Your task to perform on an android device: Open Wikipedia Image 0: 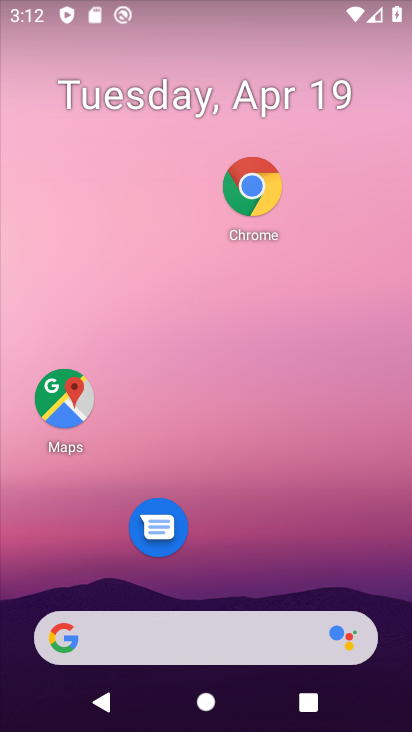
Step 0: drag from (310, 381) to (331, 292)
Your task to perform on an android device: Open Wikipedia Image 1: 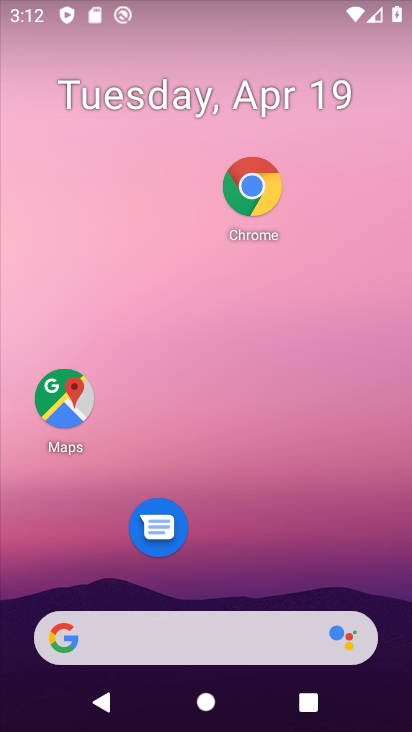
Step 1: drag from (246, 558) to (329, 231)
Your task to perform on an android device: Open Wikipedia Image 2: 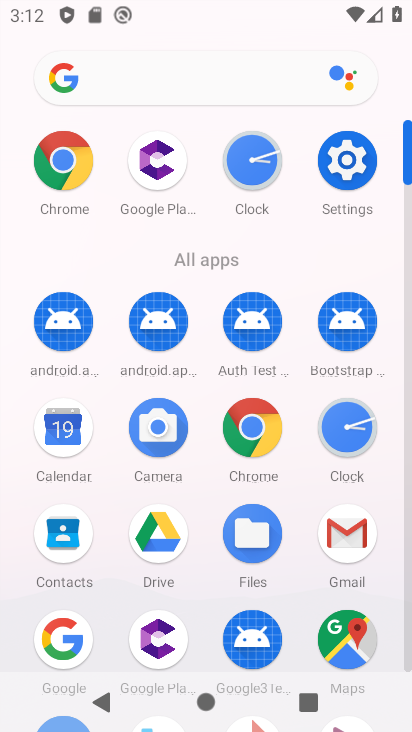
Step 2: click (256, 424)
Your task to perform on an android device: Open Wikipedia Image 3: 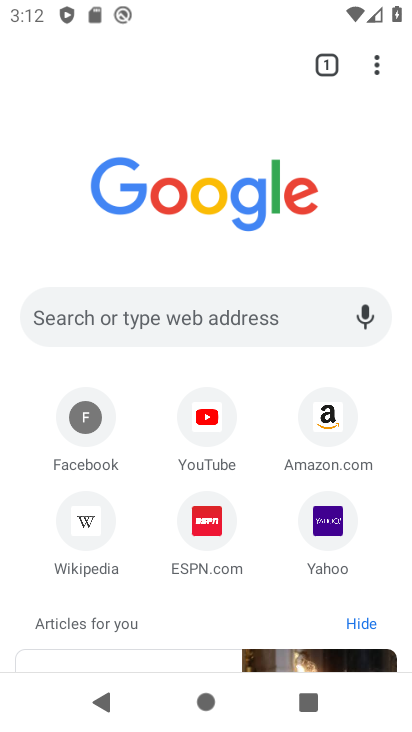
Step 3: click (67, 518)
Your task to perform on an android device: Open Wikipedia Image 4: 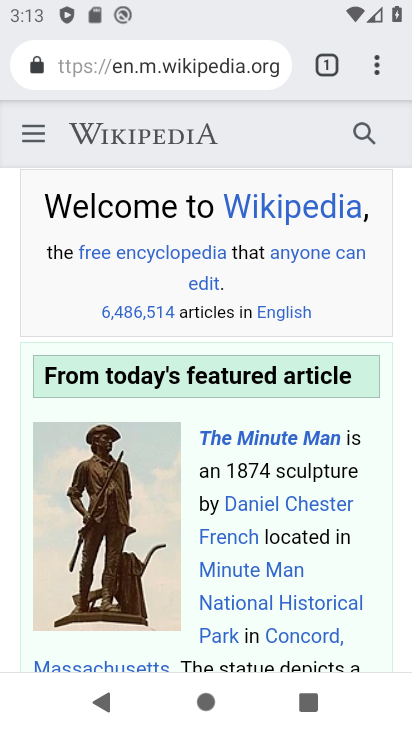
Step 4: task complete